Your task to perform on an android device: Open Google Chrome and click the shortcut for Amazon.com Image 0: 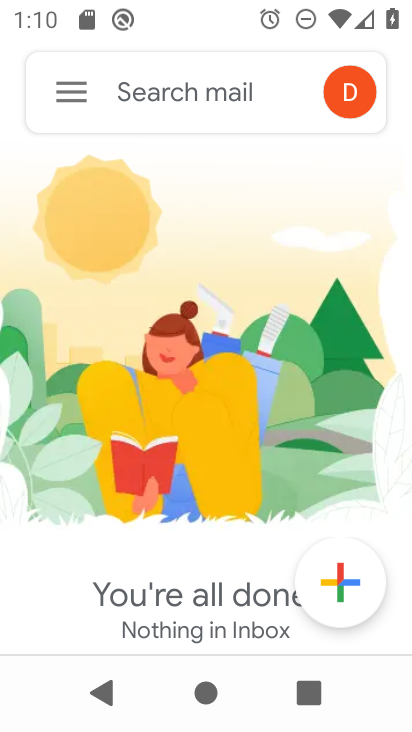
Step 0: press home button
Your task to perform on an android device: Open Google Chrome and click the shortcut for Amazon.com Image 1: 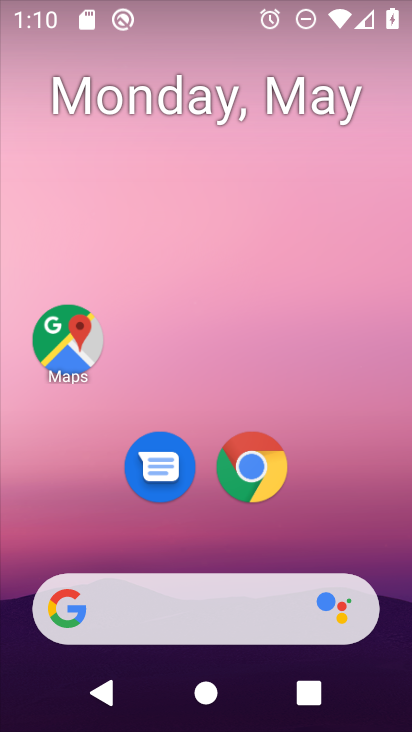
Step 1: click (263, 487)
Your task to perform on an android device: Open Google Chrome and click the shortcut for Amazon.com Image 2: 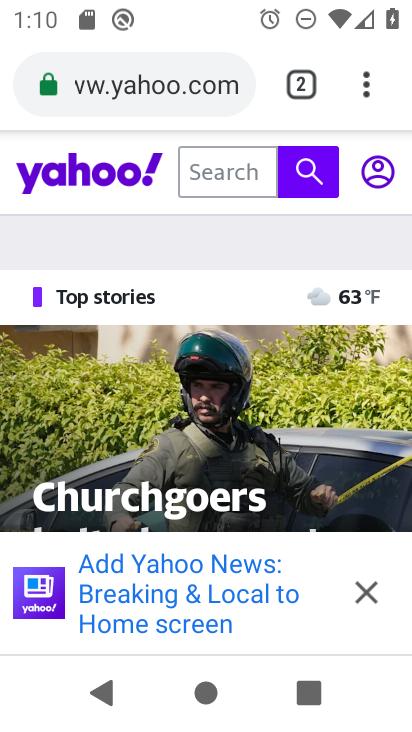
Step 2: click (366, 80)
Your task to perform on an android device: Open Google Chrome and click the shortcut for Amazon.com Image 3: 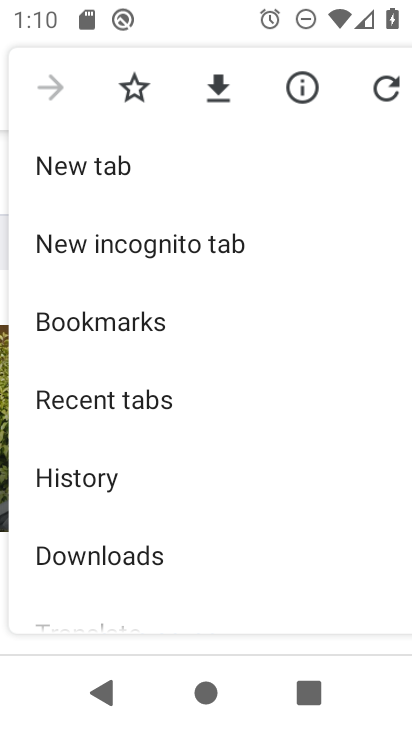
Step 3: click (81, 157)
Your task to perform on an android device: Open Google Chrome and click the shortcut for Amazon.com Image 4: 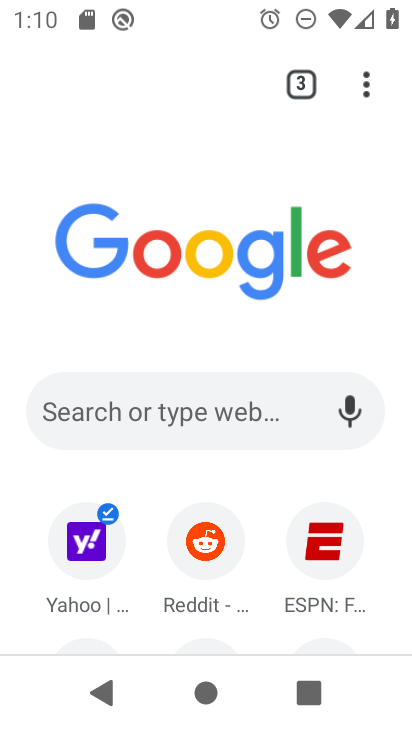
Step 4: task complete